Your task to perform on an android device: What's on my calendar tomorrow? Image 0: 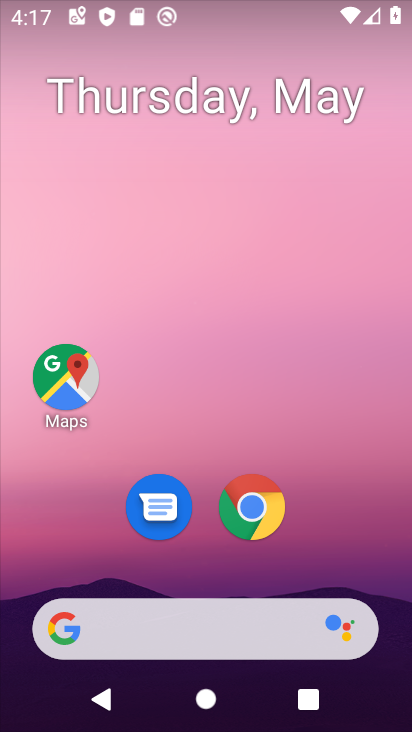
Step 0: drag from (228, 571) to (238, 73)
Your task to perform on an android device: What's on my calendar tomorrow? Image 1: 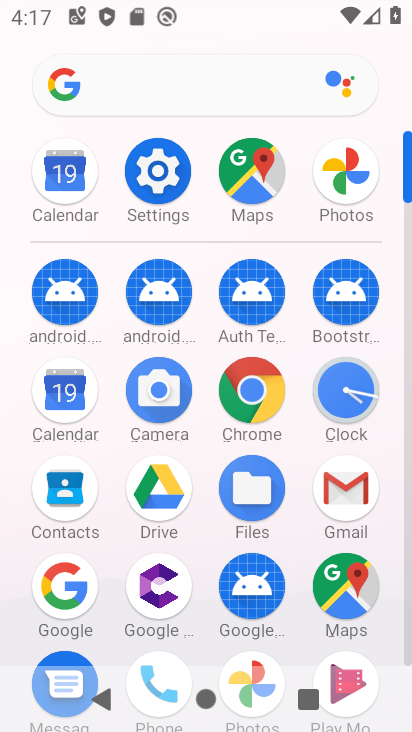
Step 1: click (60, 400)
Your task to perform on an android device: What's on my calendar tomorrow? Image 2: 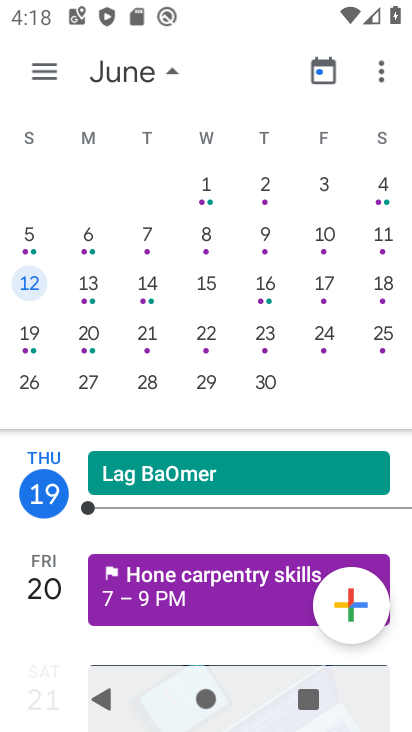
Step 2: drag from (51, 371) to (399, 338)
Your task to perform on an android device: What's on my calendar tomorrow? Image 3: 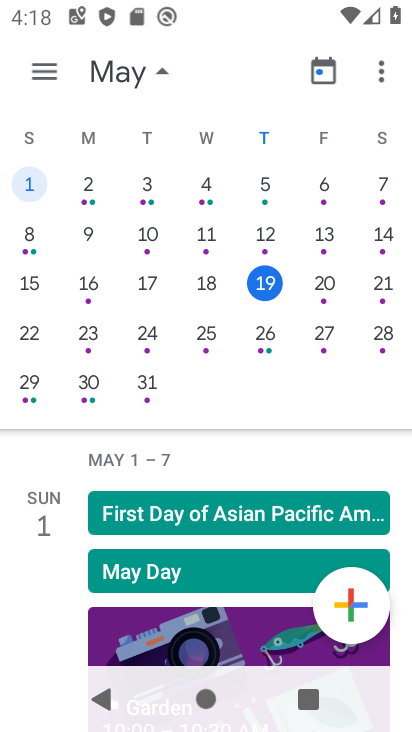
Step 3: click (330, 279)
Your task to perform on an android device: What's on my calendar tomorrow? Image 4: 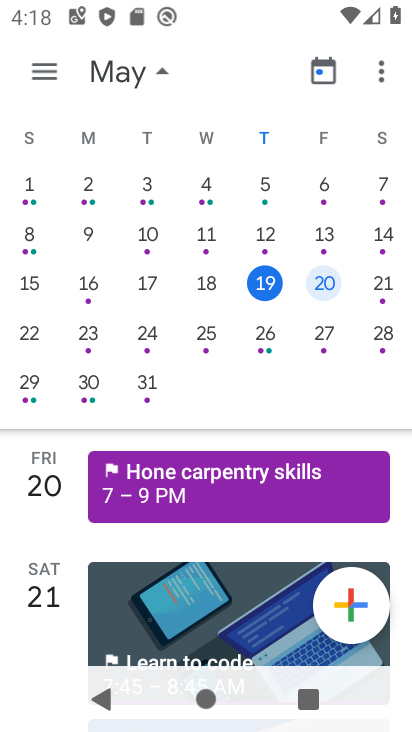
Step 4: task complete